Your task to perform on an android device: check data usage Image 0: 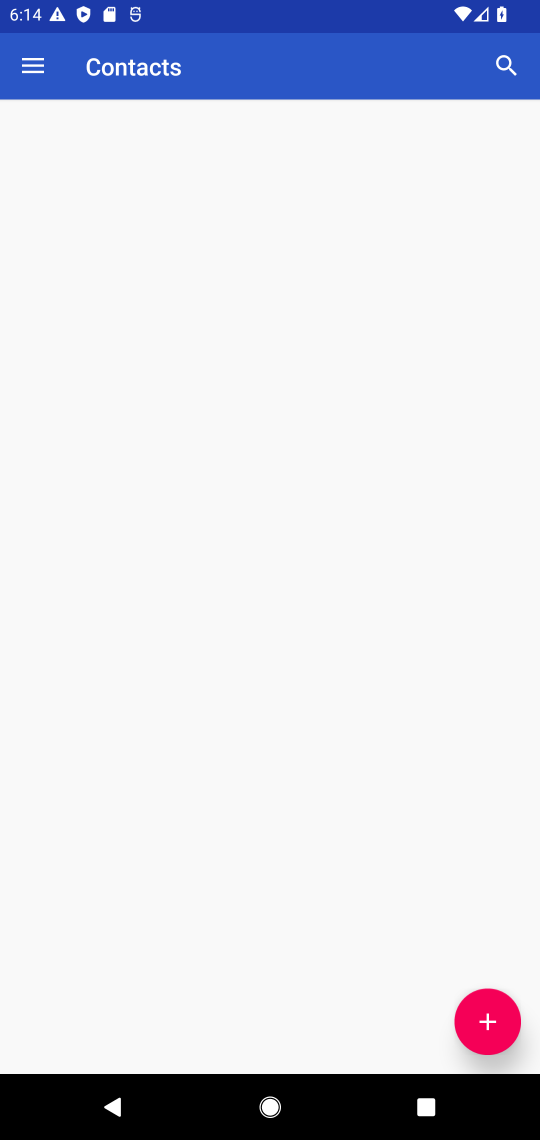
Step 0: press home button
Your task to perform on an android device: check data usage Image 1: 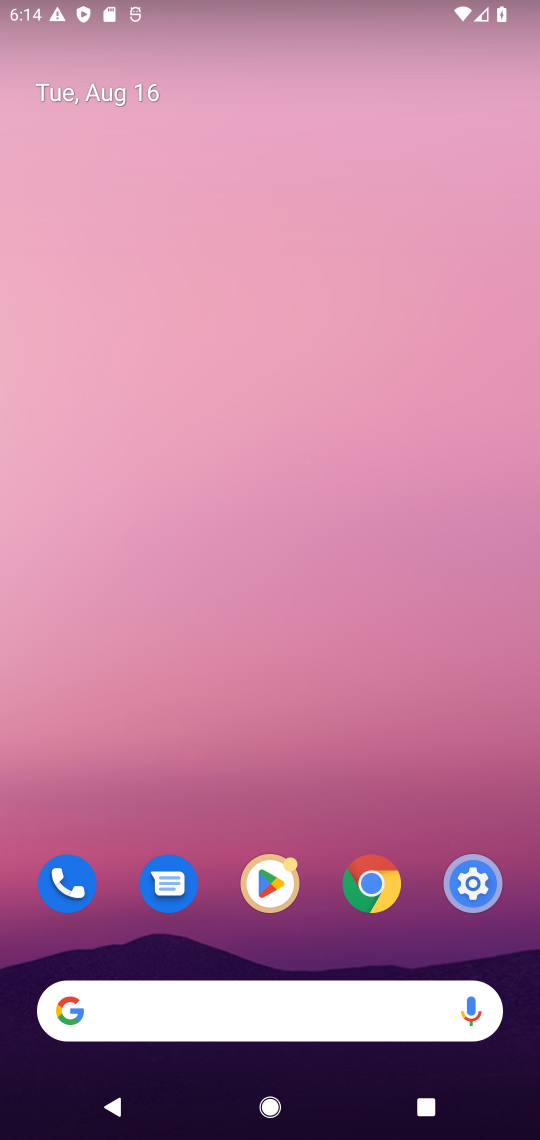
Step 1: drag from (230, 1020) to (243, 122)
Your task to perform on an android device: check data usage Image 2: 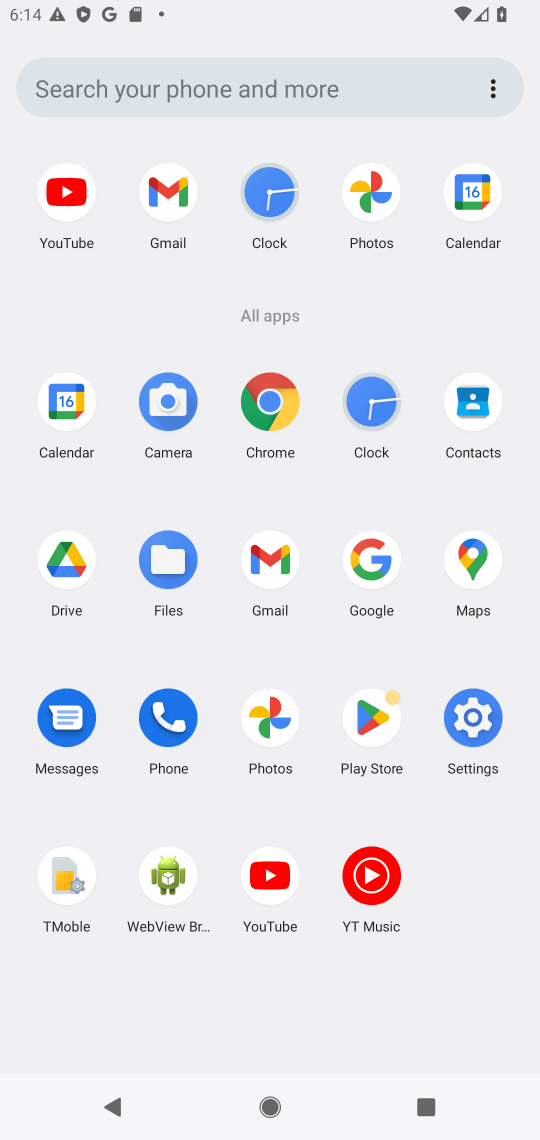
Step 2: click (473, 714)
Your task to perform on an android device: check data usage Image 3: 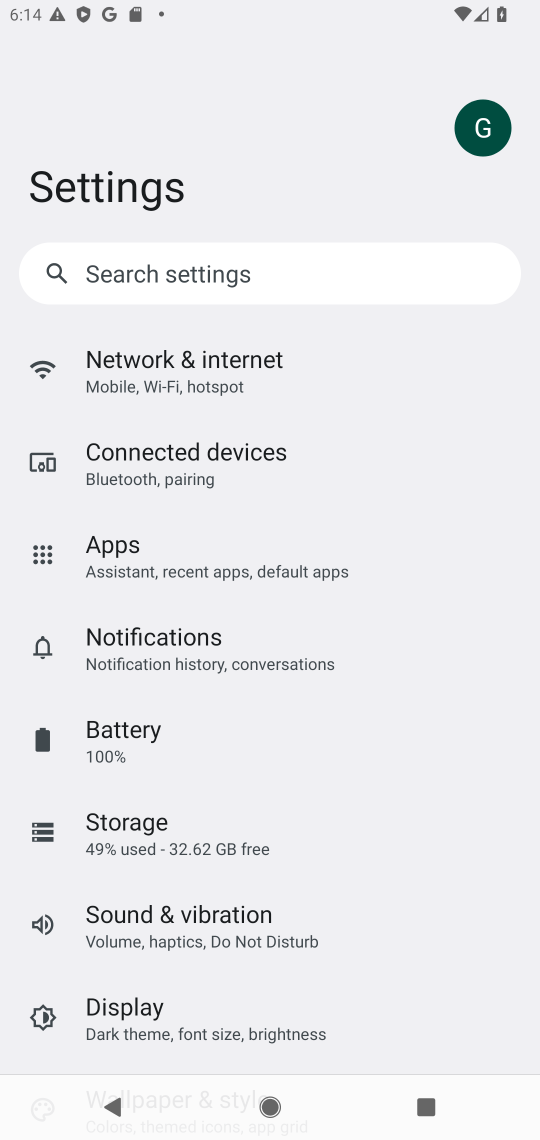
Step 3: click (205, 368)
Your task to perform on an android device: check data usage Image 4: 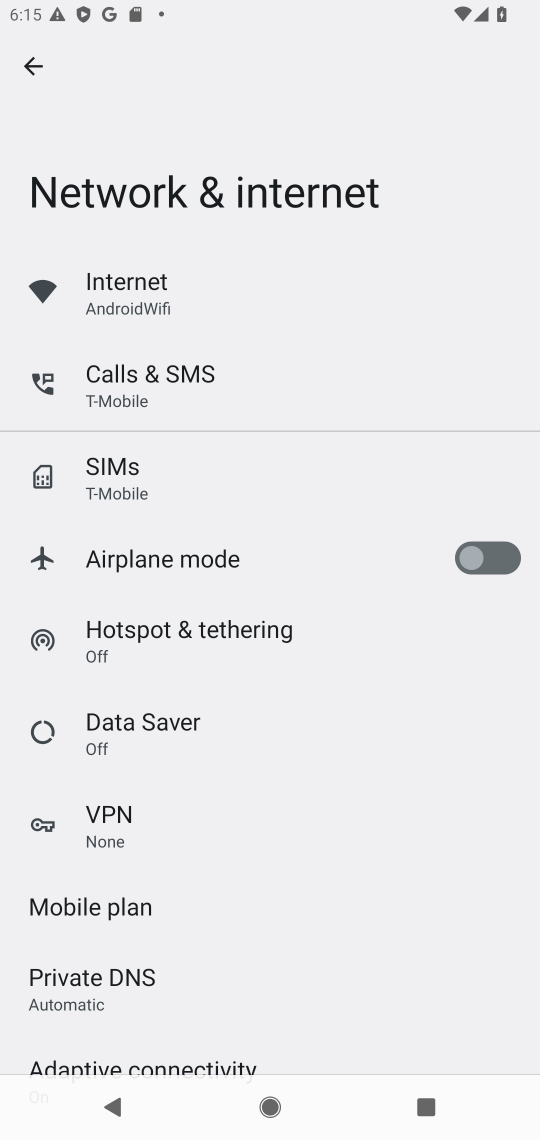
Step 4: click (146, 314)
Your task to perform on an android device: check data usage Image 5: 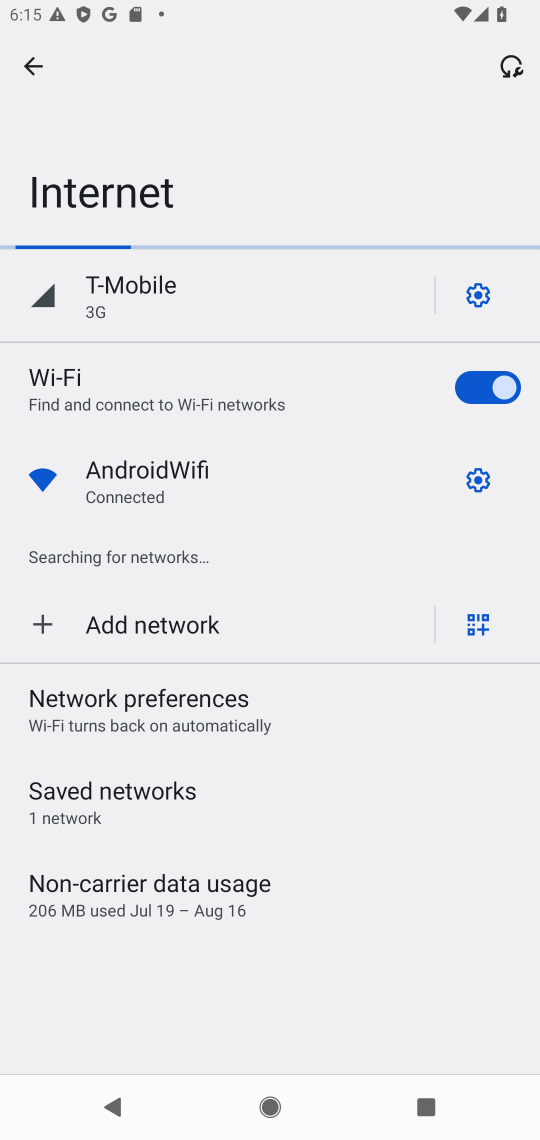
Step 5: click (481, 304)
Your task to perform on an android device: check data usage Image 6: 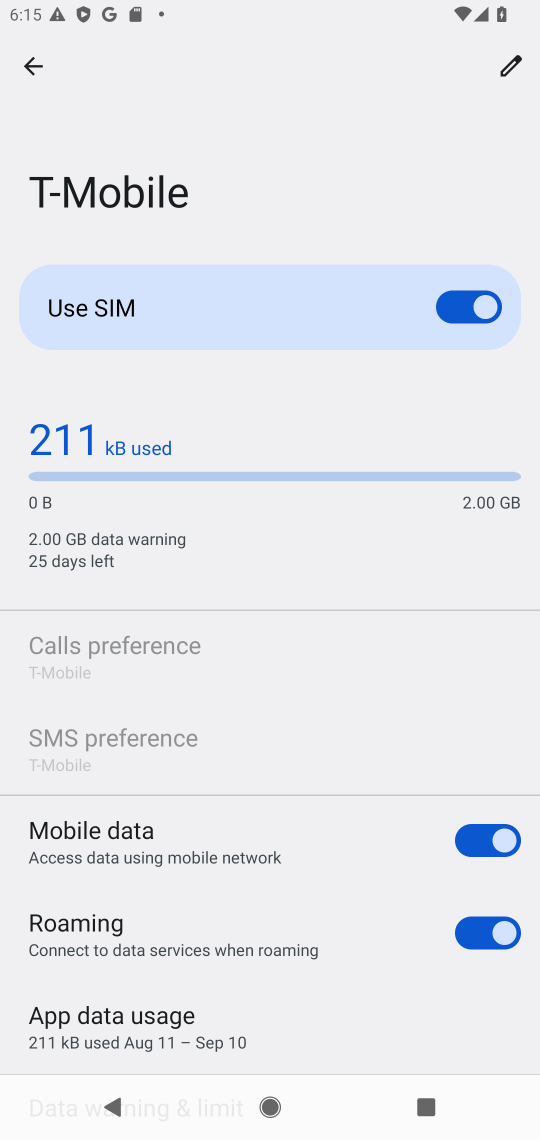
Step 6: task complete